Your task to perform on an android device: Open Reddit.com Image 0: 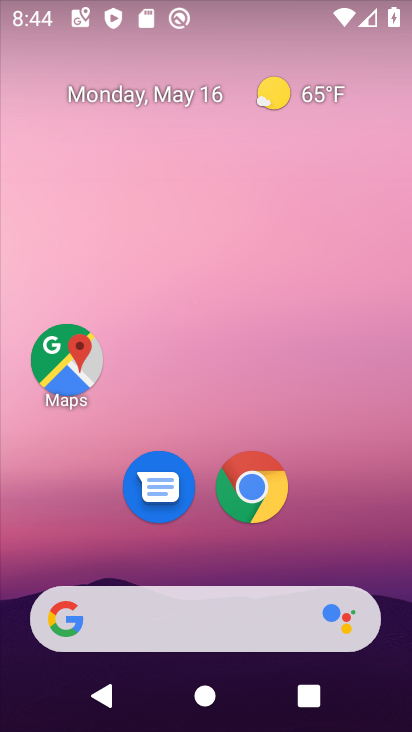
Step 0: drag from (328, 541) to (362, 207)
Your task to perform on an android device: Open Reddit.com Image 1: 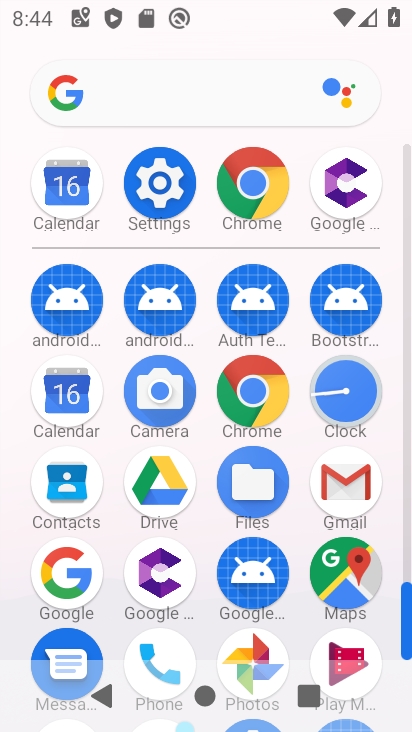
Step 1: click (275, 392)
Your task to perform on an android device: Open Reddit.com Image 2: 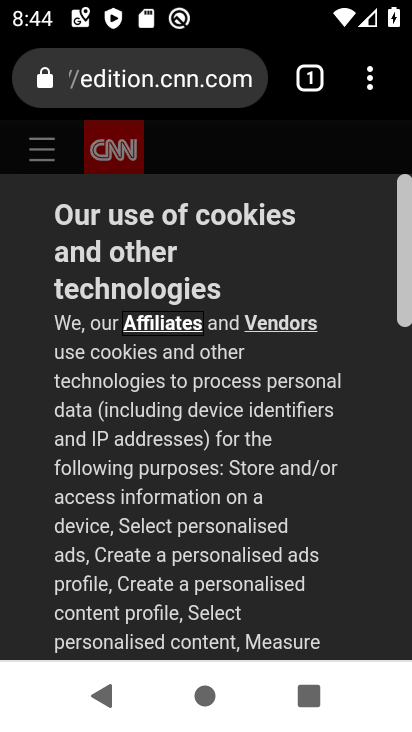
Step 2: click (194, 71)
Your task to perform on an android device: Open Reddit.com Image 3: 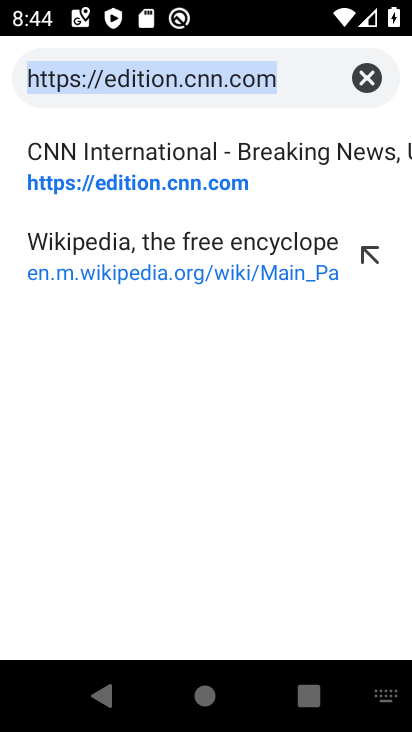
Step 3: click (357, 78)
Your task to perform on an android device: Open Reddit.com Image 4: 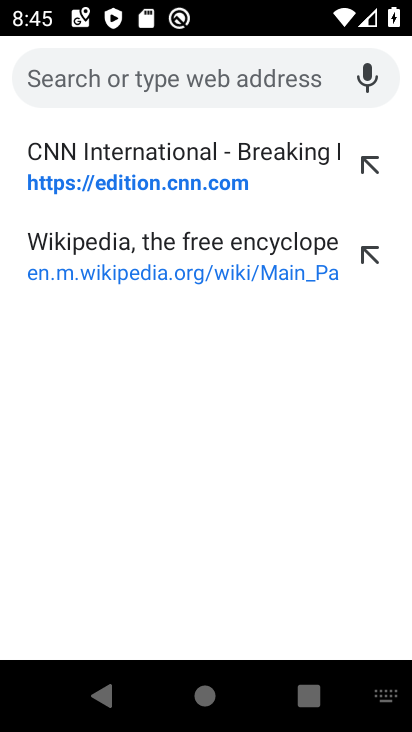
Step 4: type "reddit.com"
Your task to perform on an android device: Open Reddit.com Image 5: 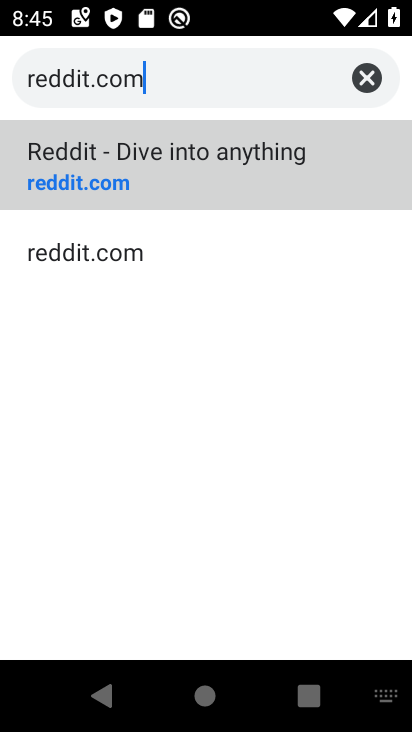
Step 5: click (208, 173)
Your task to perform on an android device: Open Reddit.com Image 6: 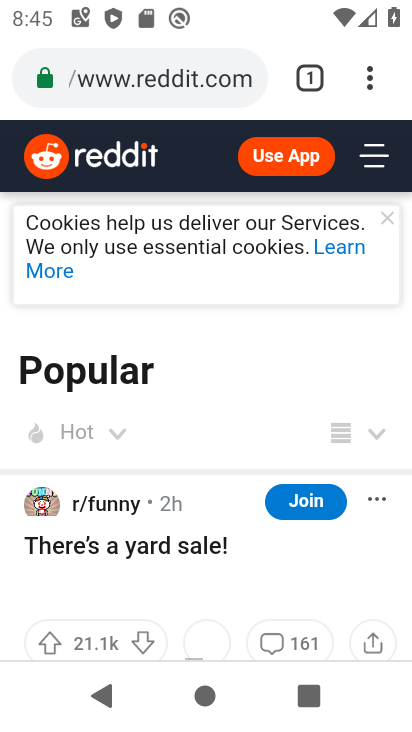
Step 6: task complete